Your task to perform on an android device: Go to internet settings Image 0: 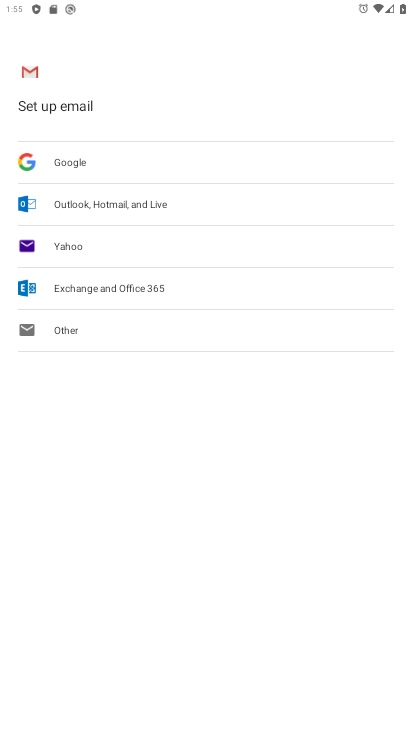
Step 0: press back button
Your task to perform on an android device: Go to internet settings Image 1: 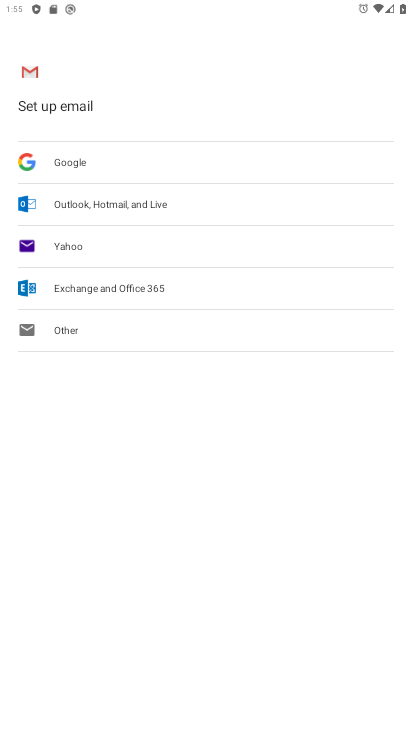
Step 1: press home button
Your task to perform on an android device: Go to internet settings Image 2: 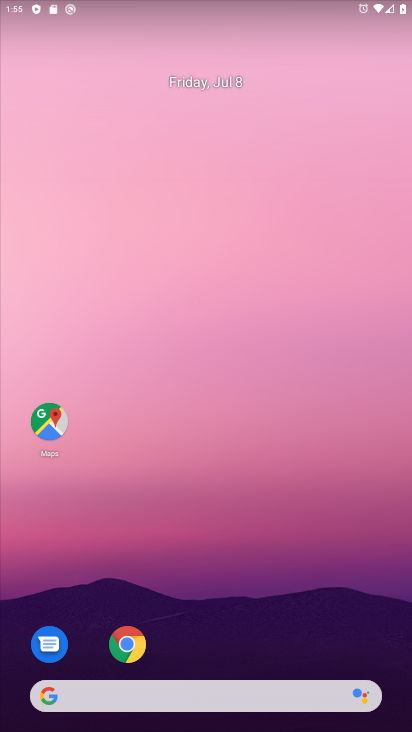
Step 2: drag from (257, 616) to (179, 194)
Your task to perform on an android device: Go to internet settings Image 3: 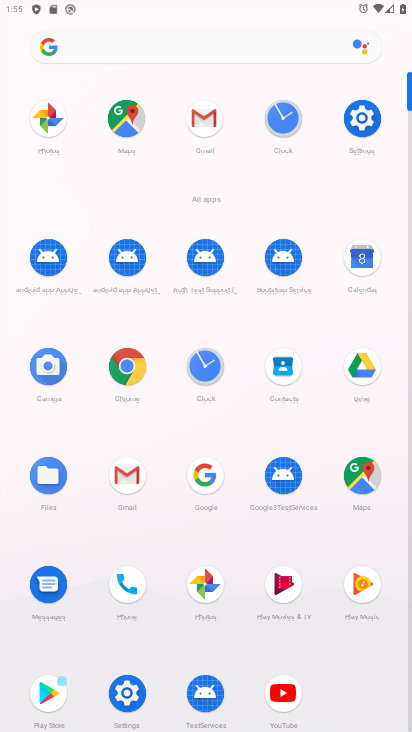
Step 3: click (33, 39)
Your task to perform on an android device: Go to internet settings Image 4: 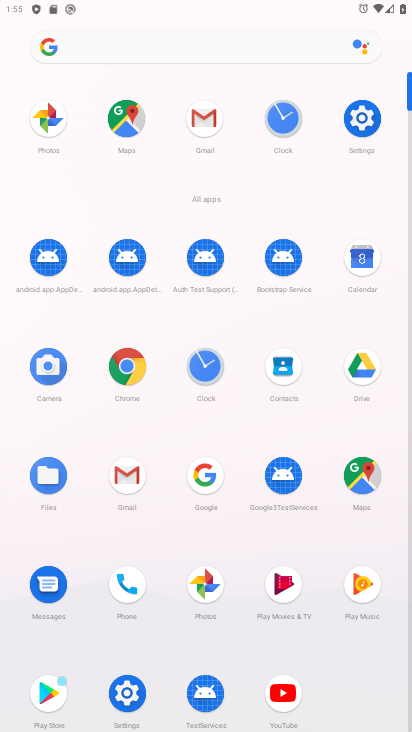
Step 4: press back button
Your task to perform on an android device: Go to internet settings Image 5: 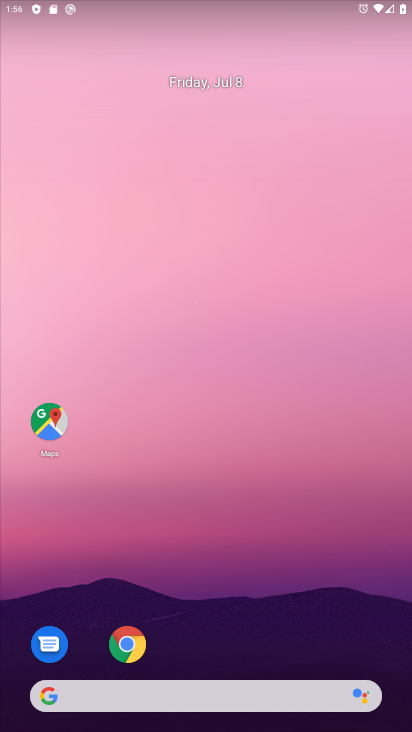
Step 5: click (359, 108)
Your task to perform on an android device: Go to internet settings Image 6: 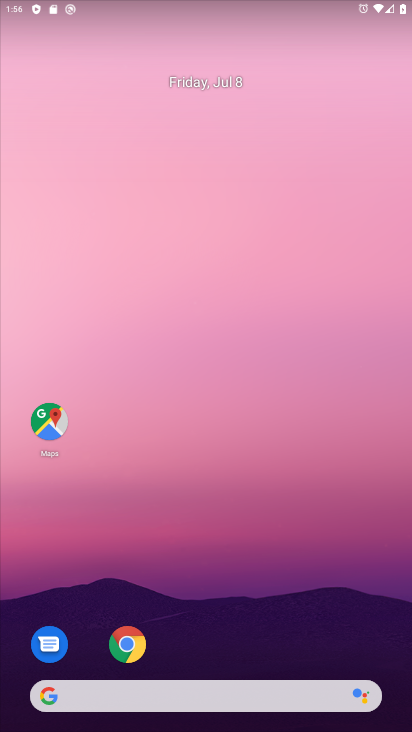
Step 6: drag from (224, 545) to (131, 109)
Your task to perform on an android device: Go to internet settings Image 7: 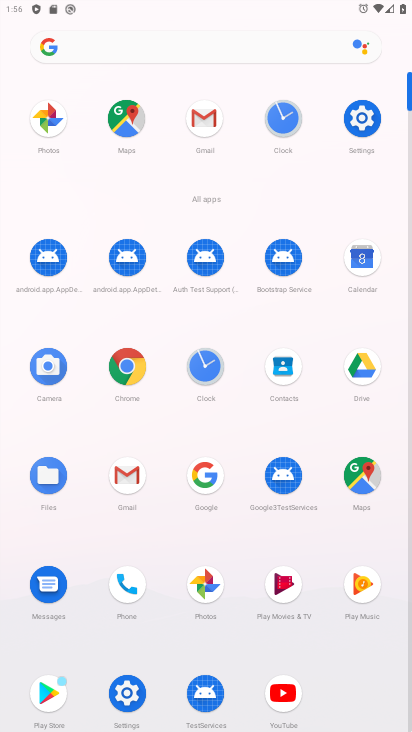
Step 7: drag from (90, 72) to (178, 91)
Your task to perform on an android device: Go to internet settings Image 8: 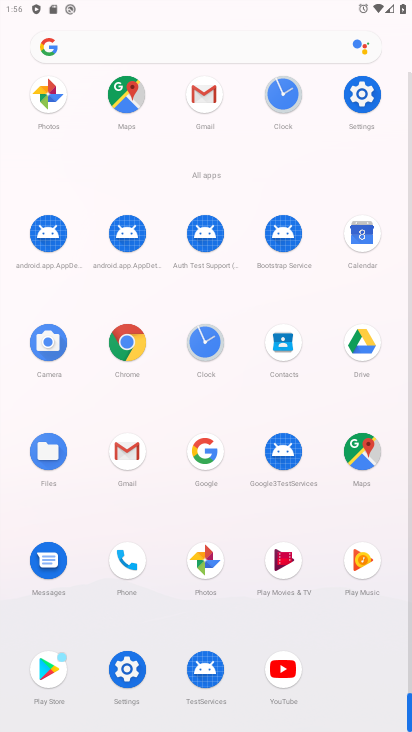
Step 8: drag from (214, 431) to (165, 173)
Your task to perform on an android device: Go to internet settings Image 9: 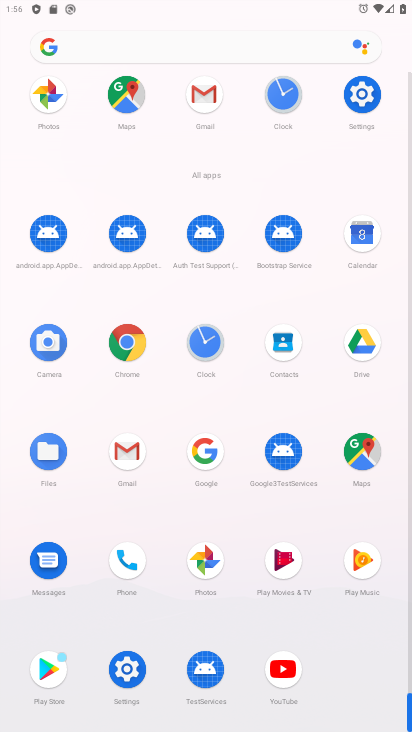
Step 9: drag from (114, 27) to (91, 52)
Your task to perform on an android device: Go to internet settings Image 10: 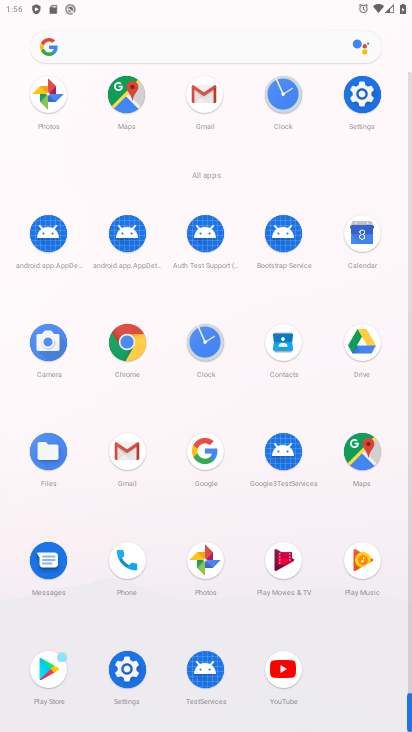
Step 10: click (151, 101)
Your task to perform on an android device: Go to internet settings Image 11: 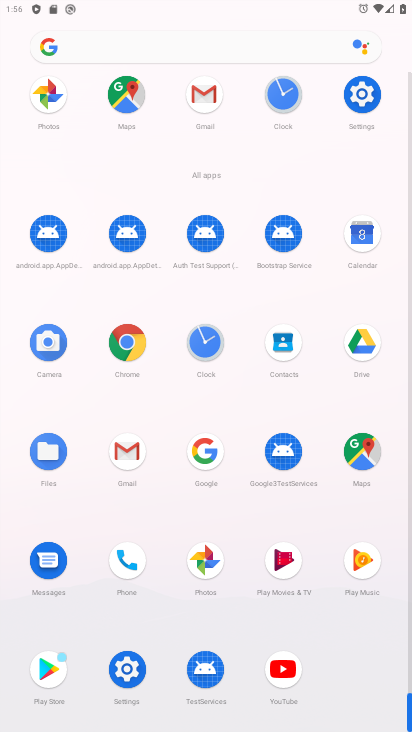
Step 11: task complete